Your task to perform on an android device: Open battery settings Image 0: 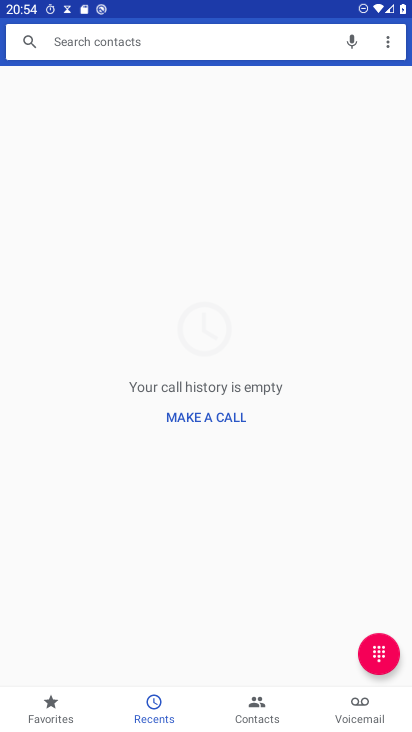
Step 0: click (29, 711)
Your task to perform on an android device: Open battery settings Image 1: 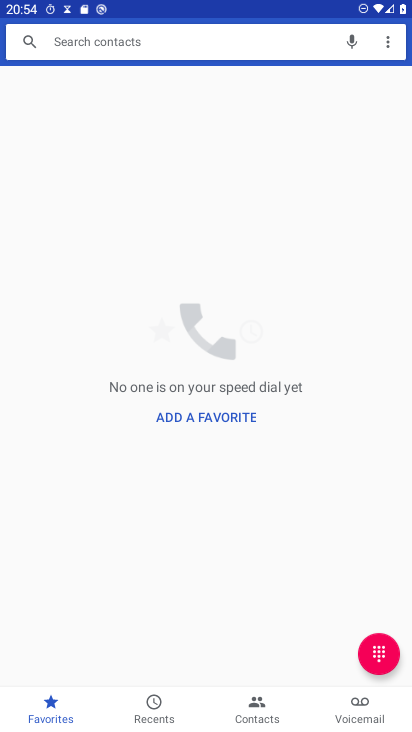
Step 1: press home button
Your task to perform on an android device: Open battery settings Image 2: 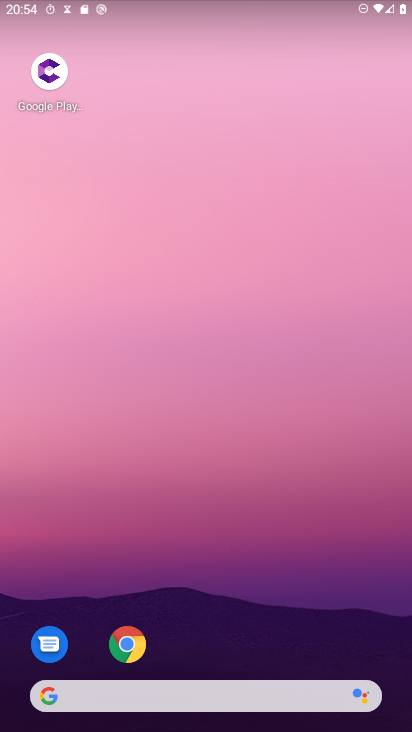
Step 2: drag from (40, 683) to (229, 125)
Your task to perform on an android device: Open battery settings Image 3: 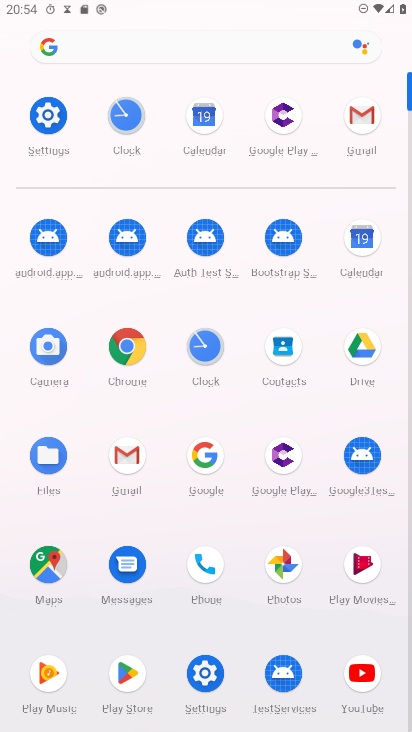
Step 3: click (204, 676)
Your task to perform on an android device: Open battery settings Image 4: 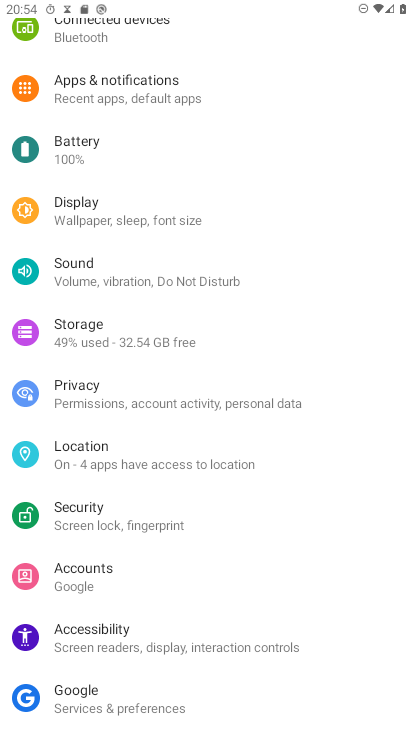
Step 4: click (93, 146)
Your task to perform on an android device: Open battery settings Image 5: 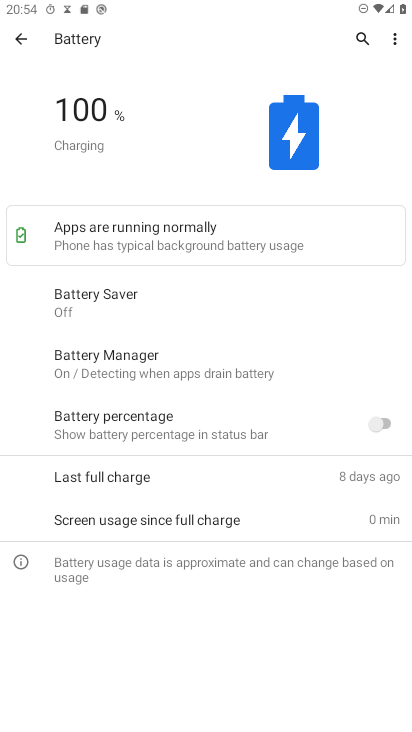
Step 5: task complete